Your task to perform on an android device: Go to network settings Image 0: 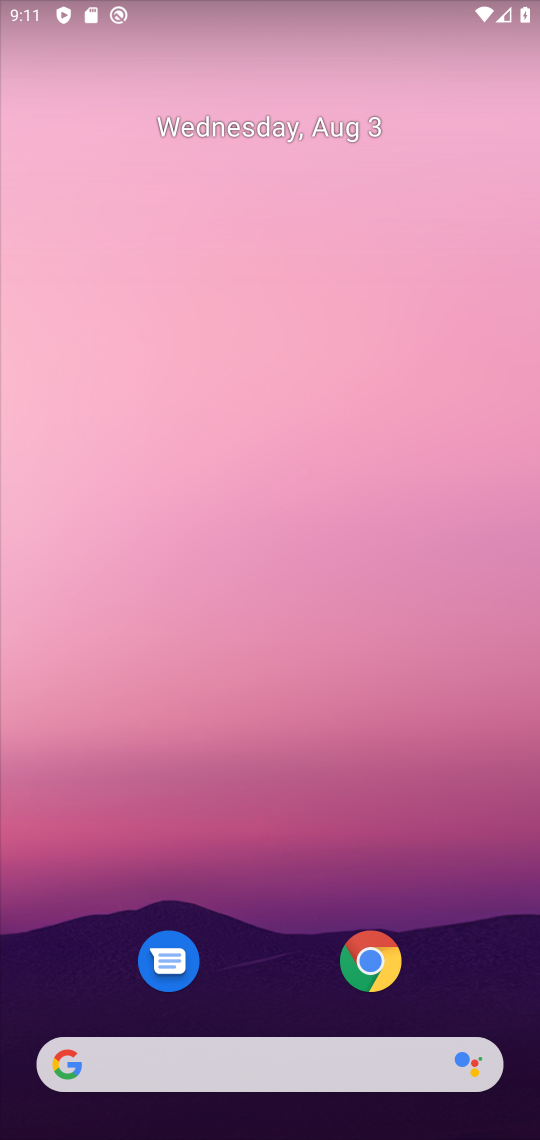
Step 0: drag from (249, 1011) to (124, 372)
Your task to perform on an android device: Go to network settings Image 1: 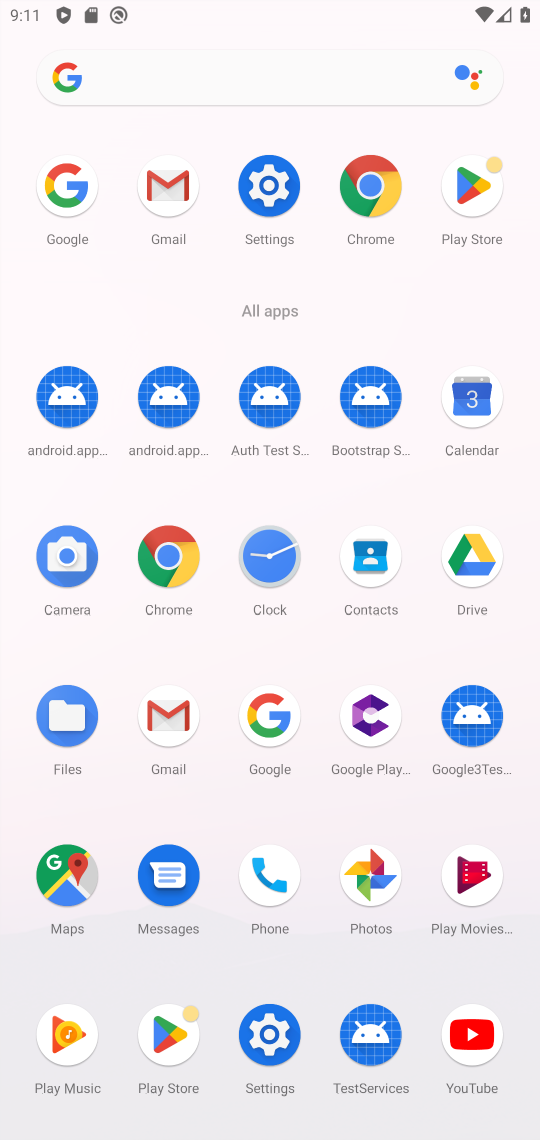
Step 1: click (288, 1042)
Your task to perform on an android device: Go to network settings Image 2: 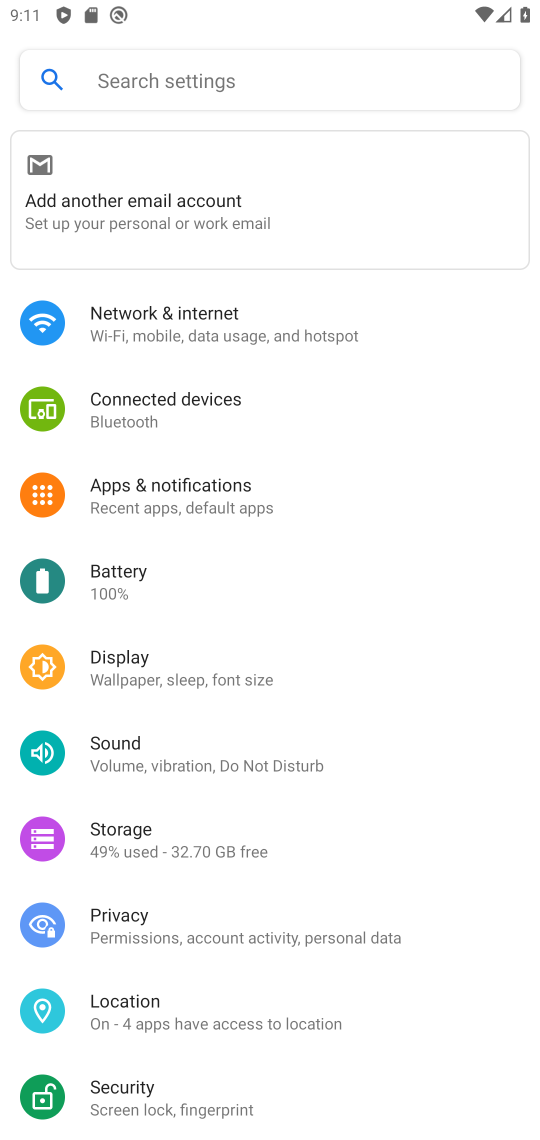
Step 2: click (79, 317)
Your task to perform on an android device: Go to network settings Image 3: 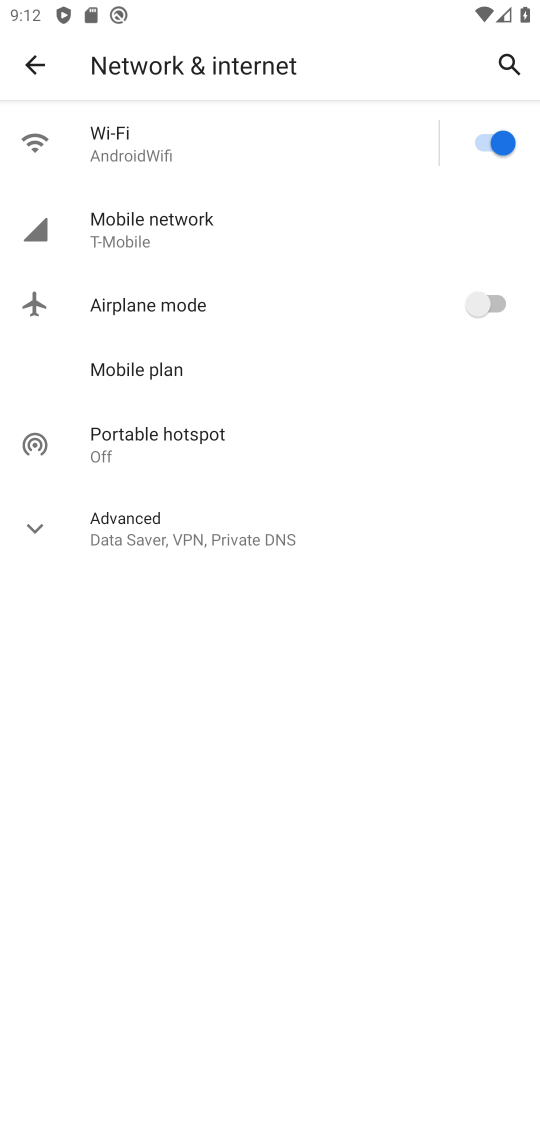
Step 3: click (243, 237)
Your task to perform on an android device: Go to network settings Image 4: 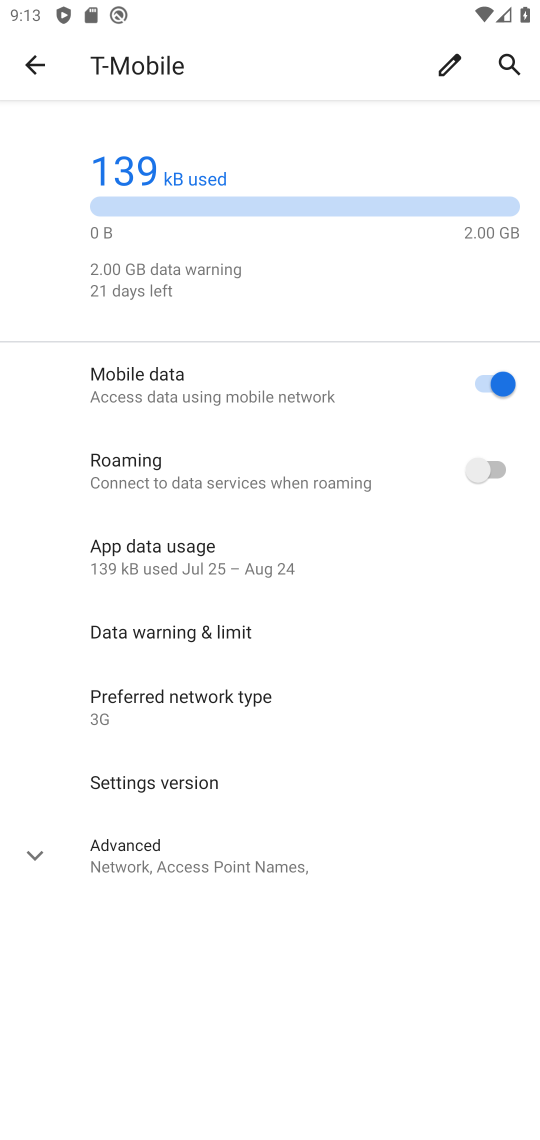
Step 4: task complete